Your task to perform on an android device: open device folders in google photos Image 0: 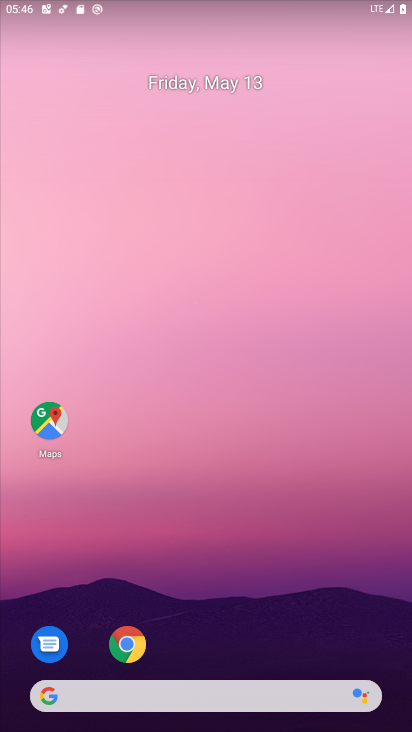
Step 0: drag from (202, 622) to (322, 7)
Your task to perform on an android device: open device folders in google photos Image 1: 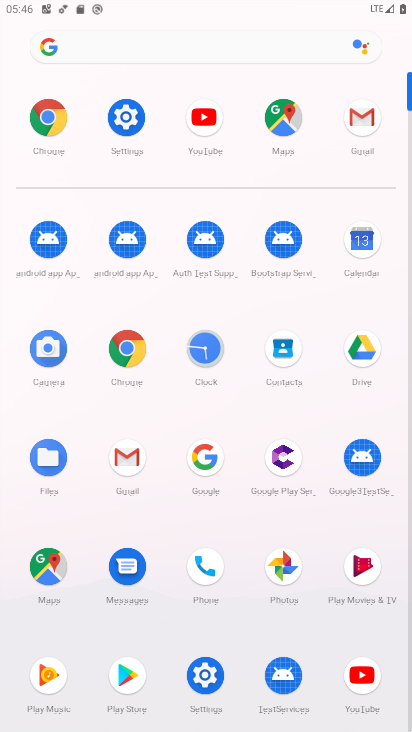
Step 1: click (290, 578)
Your task to perform on an android device: open device folders in google photos Image 2: 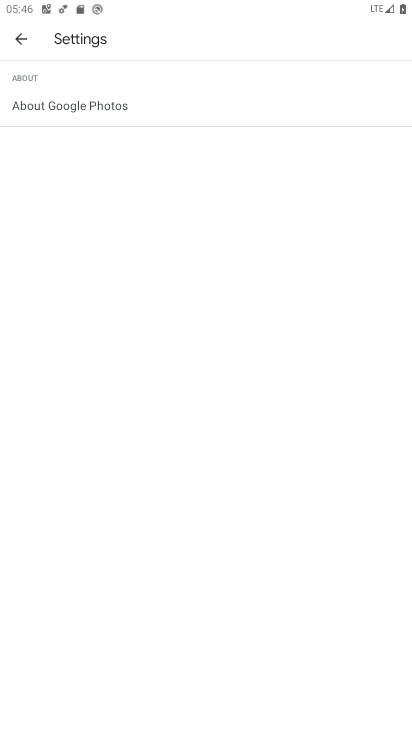
Step 2: click (19, 38)
Your task to perform on an android device: open device folders in google photos Image 3: 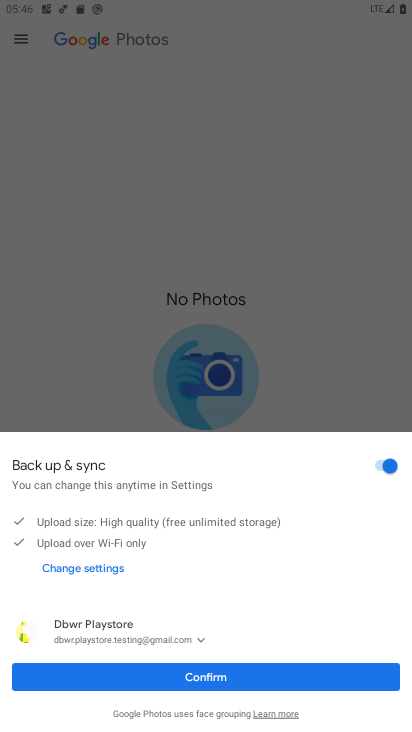
Step 3: click (219, 679)
Your task to perform on an android device: open device folders in google photos Image 4: 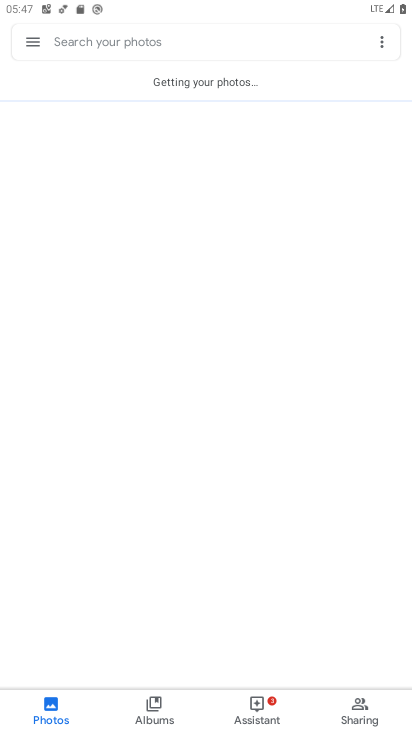
Step 4: click (34, 38)
Your task to perform on an android device: open device folders in google photos Image 5: 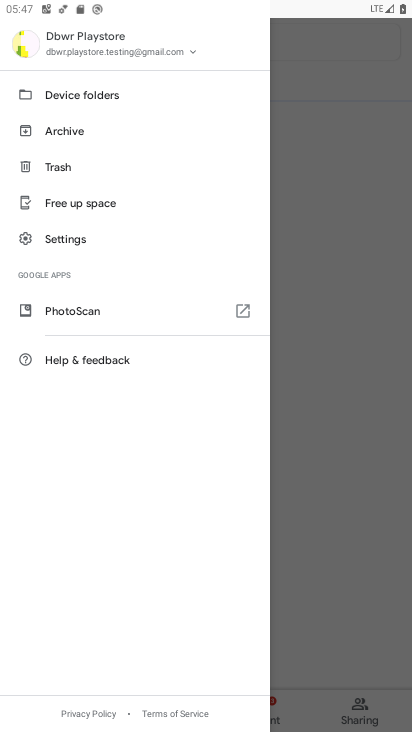
Step 5: click (95, 100)
Your task to perform on an android device: open device folders in google photos Image 6: 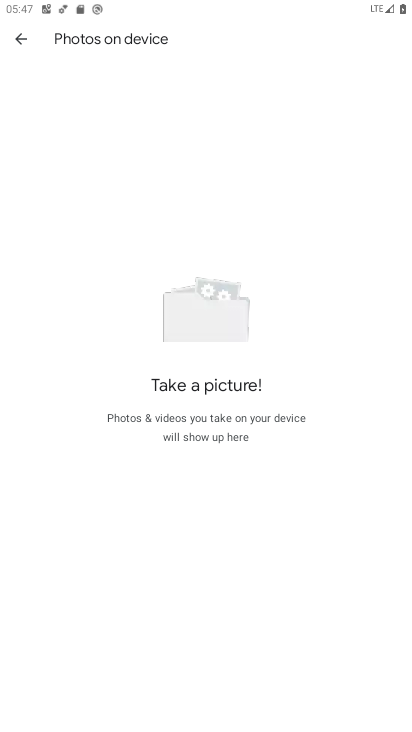
Step 6: task complete